Your task to perform on an android device: Search for Italian restaurants on Maps Image 0: 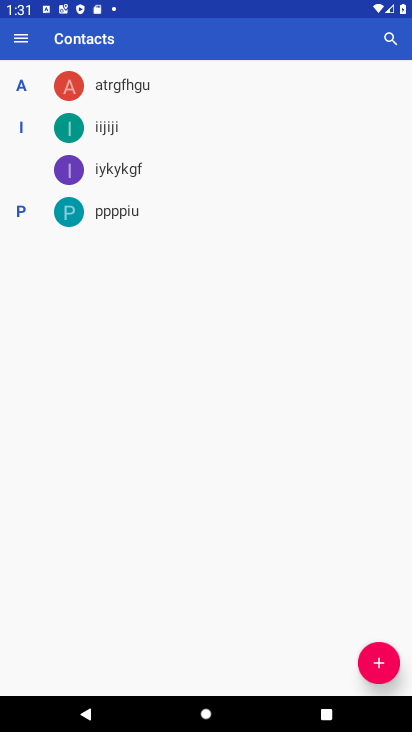
Step 0: press home button
Your task to perform on an android device: Search for Italian restaurants on Maps Image 1: 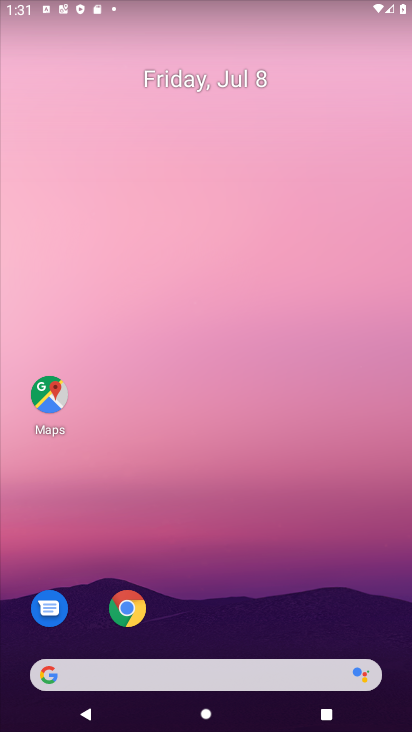
Step 1: click (49, 397)
Your task to perform on an android device: Search for Italian restaurants on Maps Image 2: 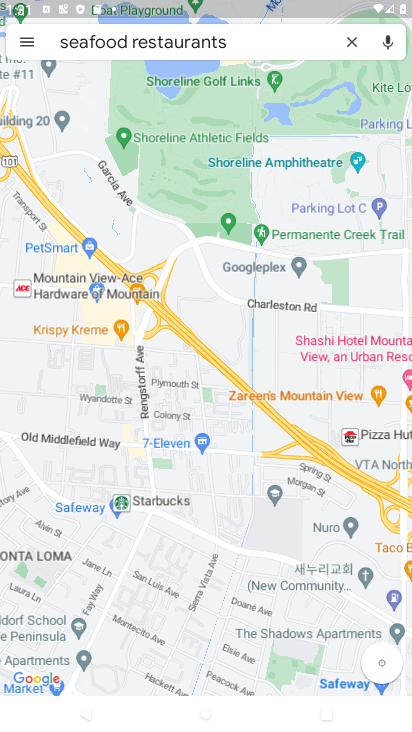
Step 2: click (349, 40)
Your task to perform on an android device: Search for Italian restaurants on Maps Image 3: 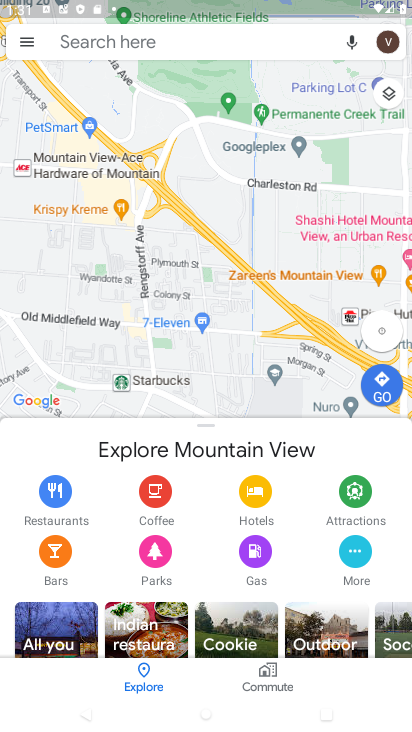
Step 3: click (85, 40)
Your task to perform on an android device: Search for Italian restaurants on Maps Image 4: 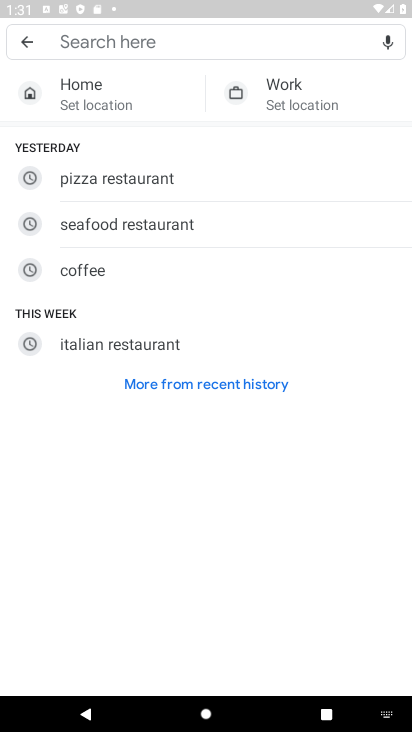
Step 4: type "italian restaurants"
Your task to perform on an android device: Search for Italian restaurants on Maps Image 5: 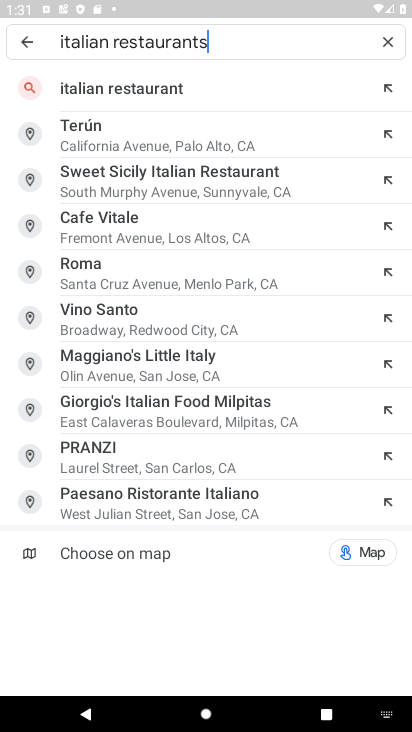
Step 5: click (112, 88)
Your task to perform on an android device: Search for Italian restaurants on Maps Image 6: 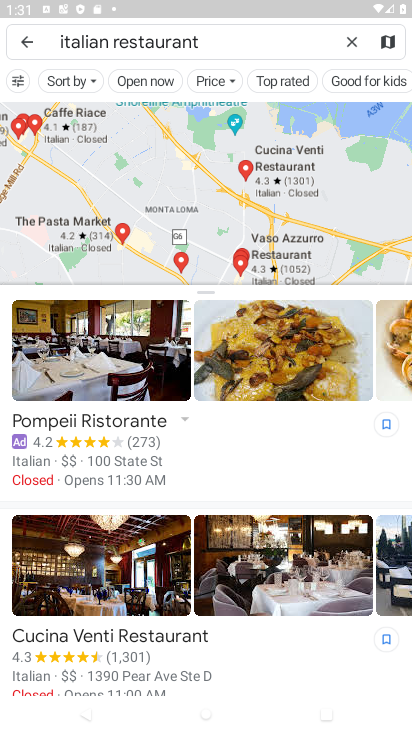
Step 6: task complete